Your task to perform on an android device: Open settings Image 0: 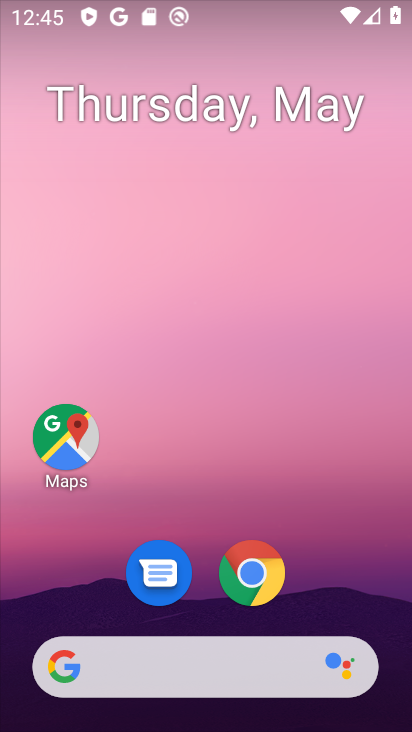
Step 0: drag from (342, 527) to (257, 8)
Your task to perform on an android device: Open settings Image 1: 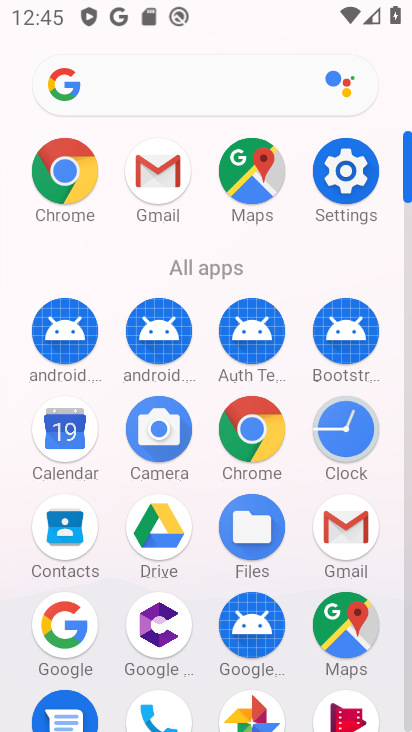
Step 1: click (347, 169)
Your task to perform on an android device: Open settings Image 2: 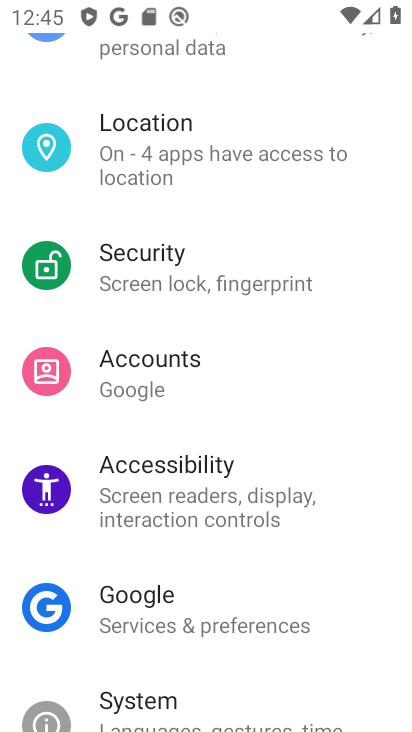
Step 2: task complete